Your task to perform on an android device: turn on showing notifications on the lock screen Image 0: 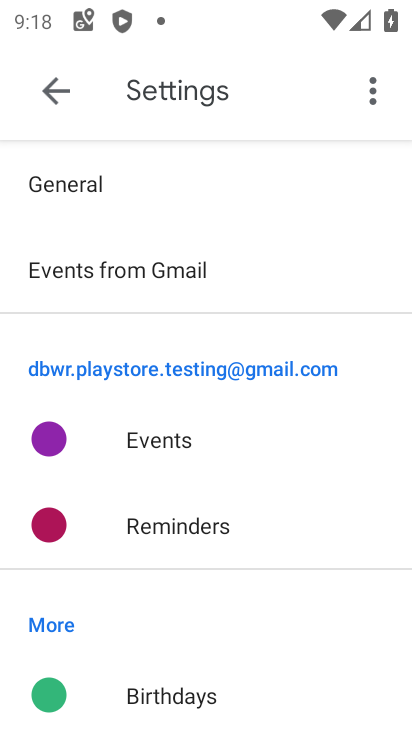
Step 0: press home button
Your task to perform on an android device: turn on showing notifications on the lock screen Image 1: 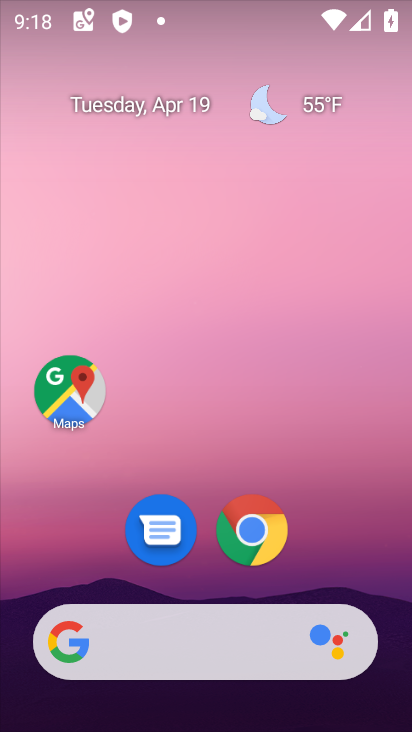
Step 1: drag from (200, 557) to (184, 150)
Your task to perform on an android device: turn on showing notifications on the lock screen Image 2: 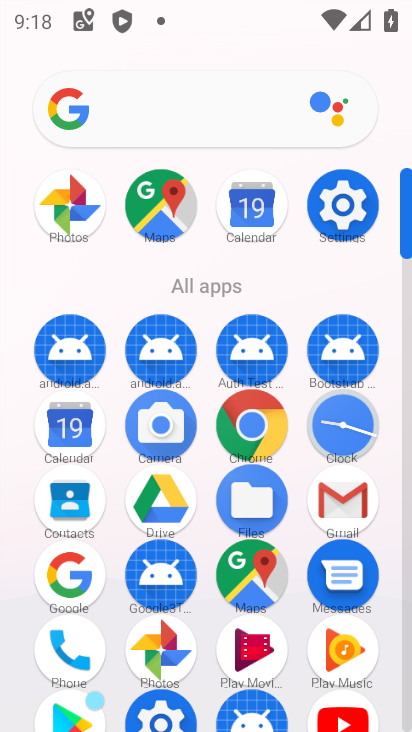
Step 2: click (336, 201)
Your task to perform on an android device: turn on showing notifications on the lock screen Image 3: 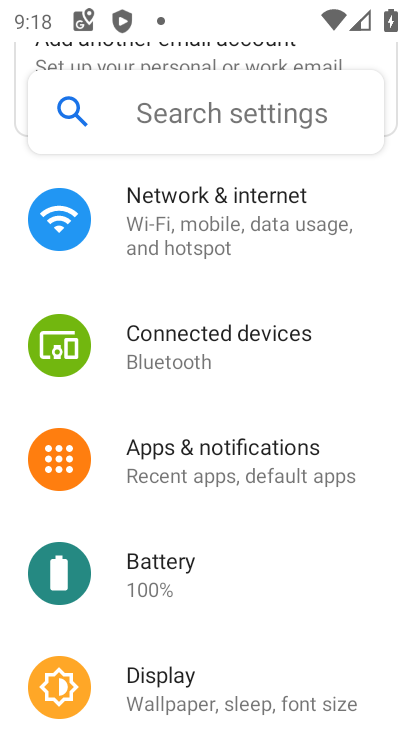
Step 3: click (198, 469)
Your task to perform on an android device: turn on showing notifications on the lock screen Image 4: 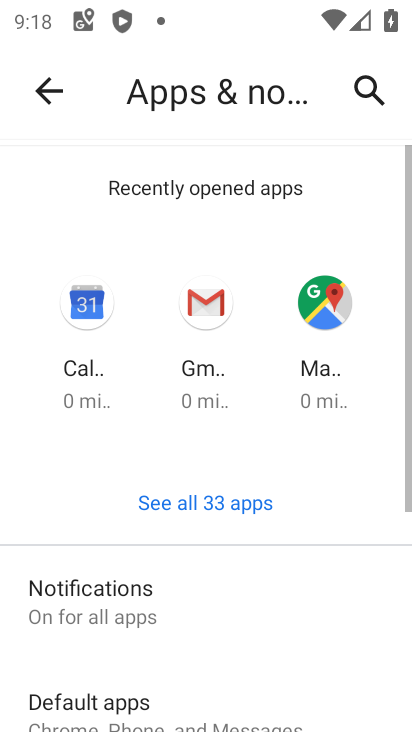
Step 4: click (103, 617)
Your task to perform on an android device: turn on showing notifications on the lock screen Image 5: 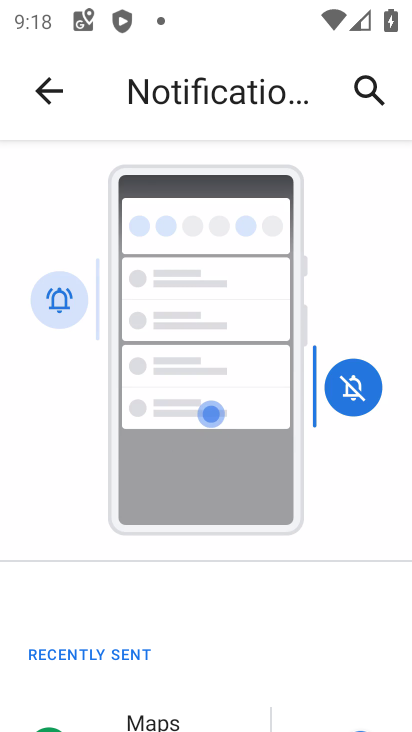
Step 5: drag from (301, 626) to (264, 178)
Your task to perform on an android device: turn on showing notifications on the lock screen Image 6: 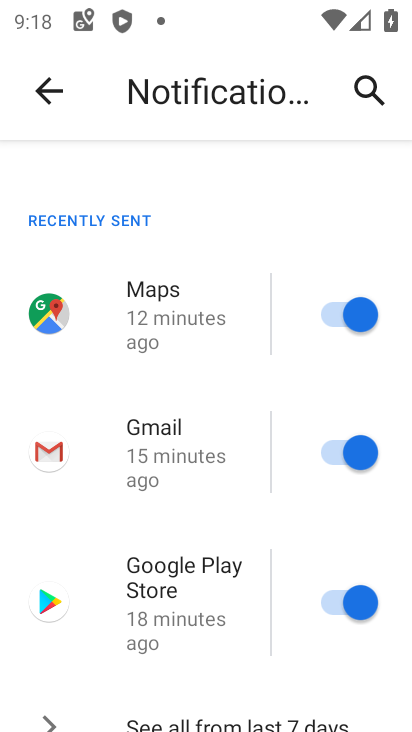
Step 6: drag from (225, 661) to (207, 321)
Your task to perform on an android device: turn on showing notifications on the lock screen Image 7: 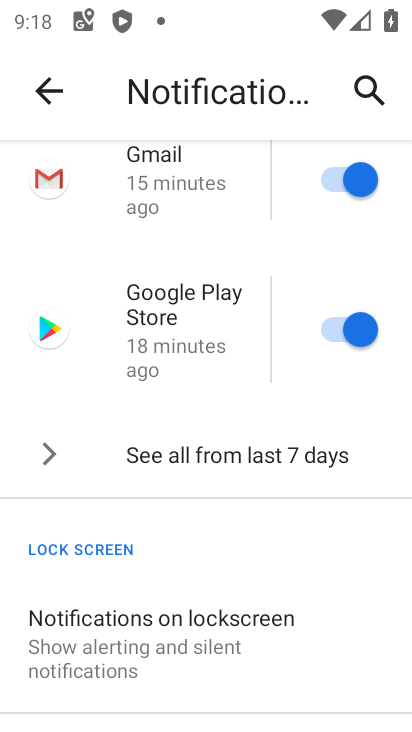
Step 7: click (152, 632)
Your task to perform on an android device: turn on showing notifications on the lock screen Image 8: 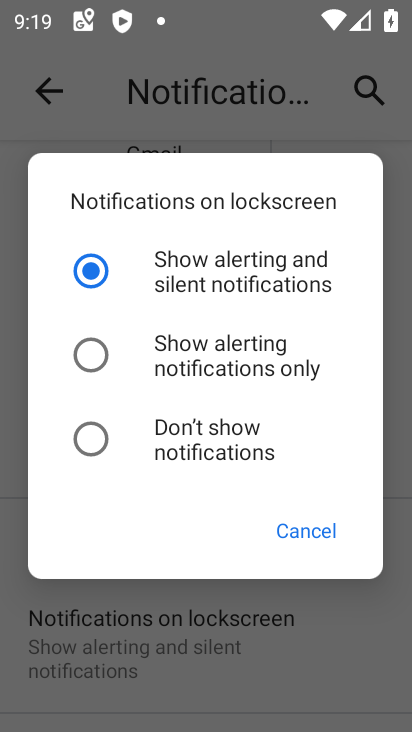
Step 8: task complete